Your task to perform on an android device: show emergency info Image 0: 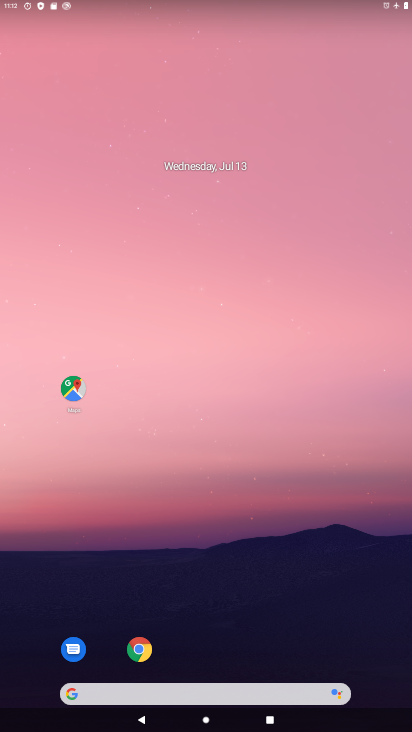
Step 0: drag from (191, 689) to (203, 144)
Your task to perform on an android device: show emergency info Image 1: 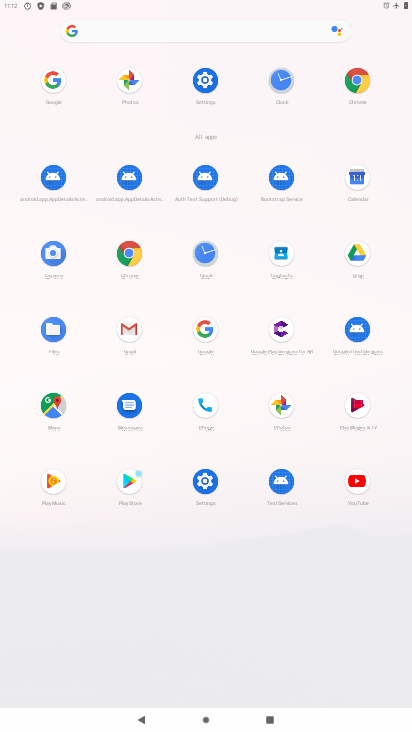
Step 1: click (205, 79)
Your task to perform on an android device: show emergency info Image 2: 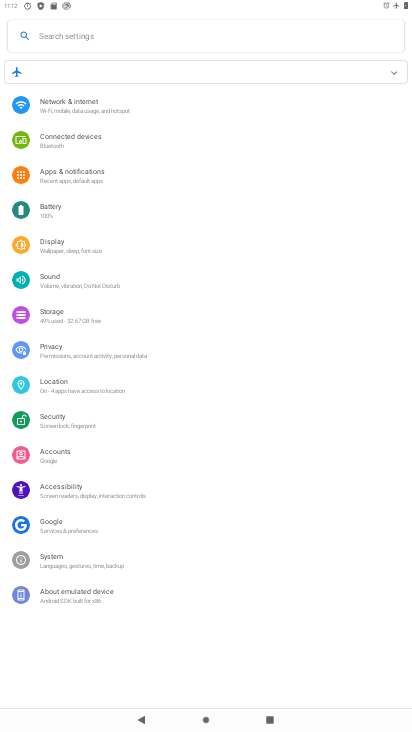
Step 2: click (85, 594)
Your task to perform on an android device: show emergency info Image 3: 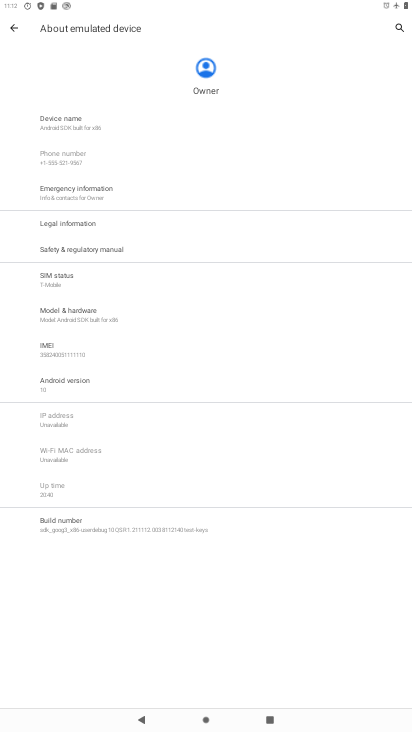
Step 3: click (87, 197)
Your task to perform on an android device: show emergency info Image 4: 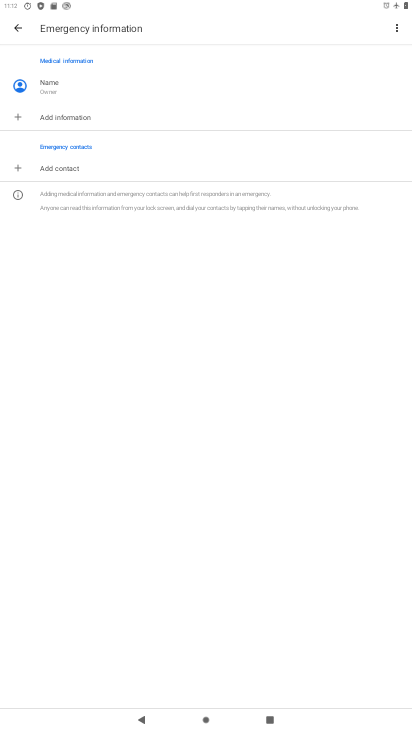
Step 4: task complete